Your task to perform on an android device: find photos in the google photos app Image 0: 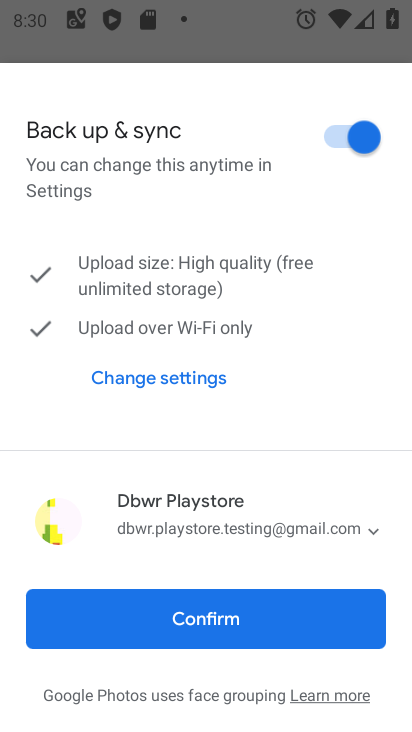
Step 0: press home button
Your task to perform on an android device: find photos in the google photos app Image 1: 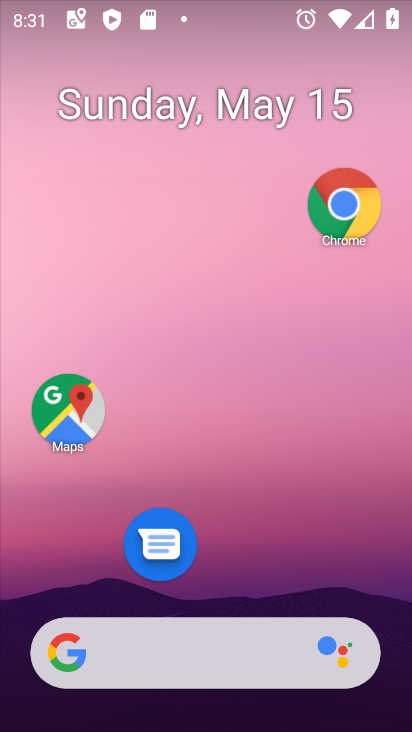
Step 1: drag from (219, 585) to (229, 0)
Your task to perform on an android device: find photos in the google photos app Image 2: 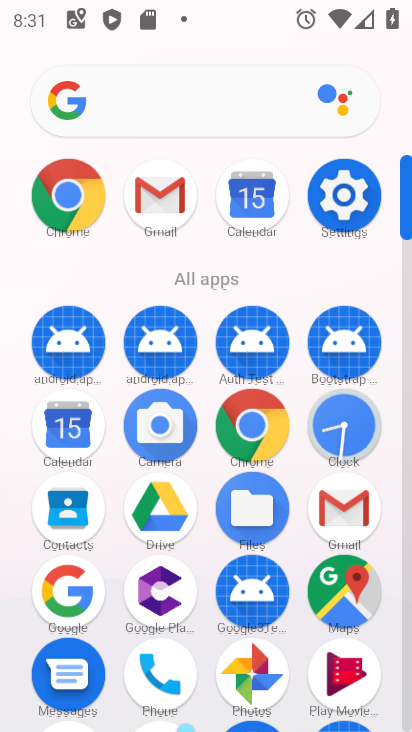
Step 2: click (254, 662)
Your task to perform on an android device: find photos in the google photos app Image 3: 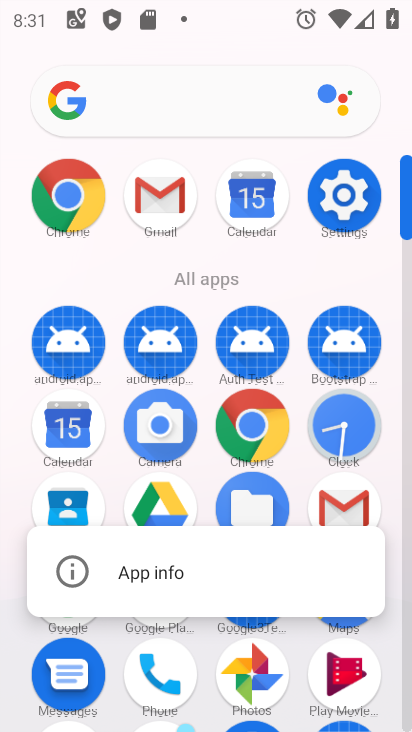
Step 3: click (233, 679)
Your task to perform on an android device: find photos in the google photos app Image 4: 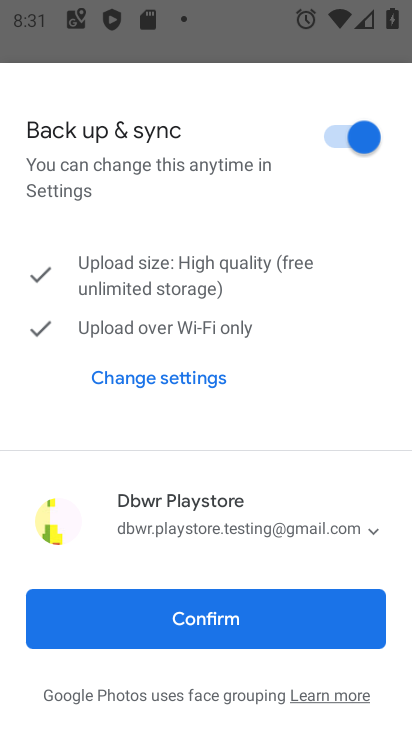
Step 4: click (208, 629)
Your task to perform on an android device: find photos in the google photos app Image 5: 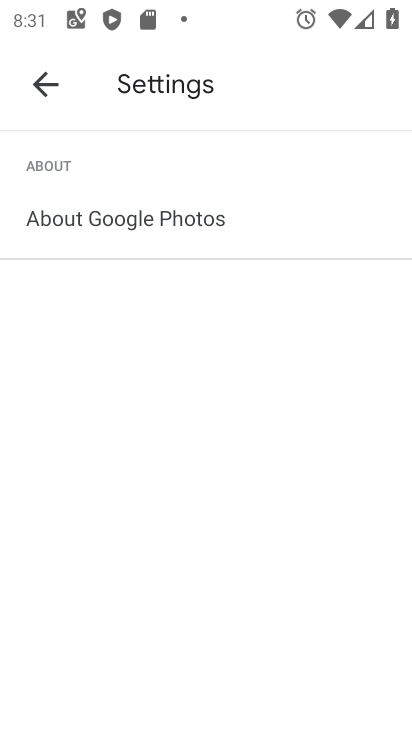
Step 5: click (49, 89)
Your task to perform on an android device: find photos in the google photos app Image 6: 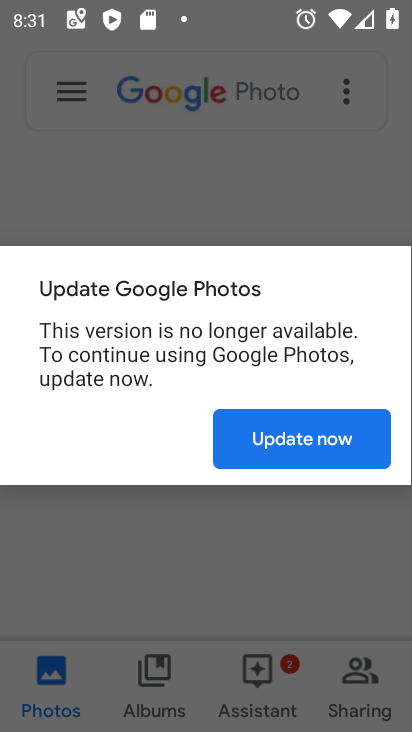
Step 6: click (308, 435)
Your task to perform on an android device: find photos in the google photos app Image 7: 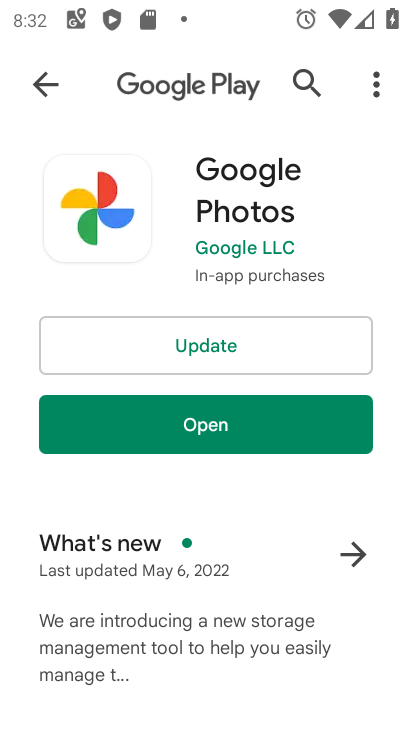
Step 7: click (270, 343)
Your task to perform on an android device: find photos in the google photos app Image 8: 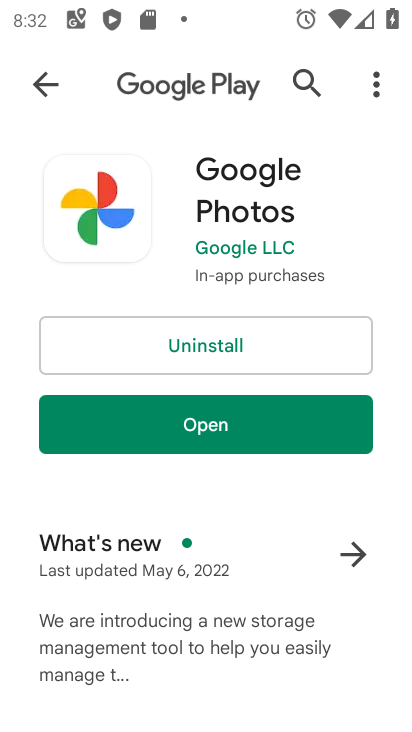
Step 8: click (265, 427)
Your task to perform on an android device: find photos in the google photos app Image 9: 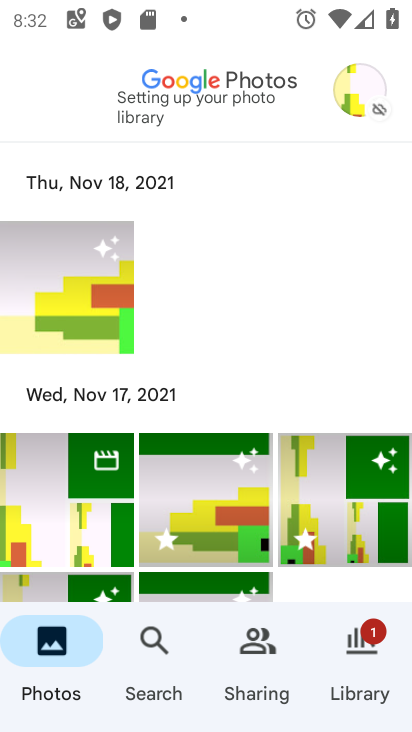
Step 9: task complete